Your task to perform on an android device: clear all cookies in the chrome app Image 0: 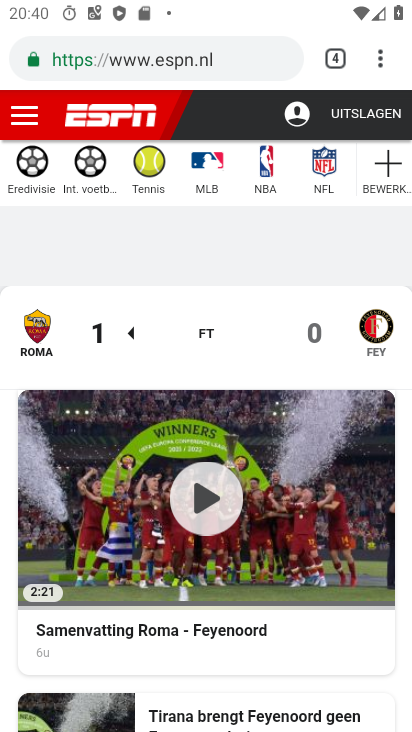
Step 0: press home button
Your task to perform on an android device: clear all cookies in the chrome app Image 1: 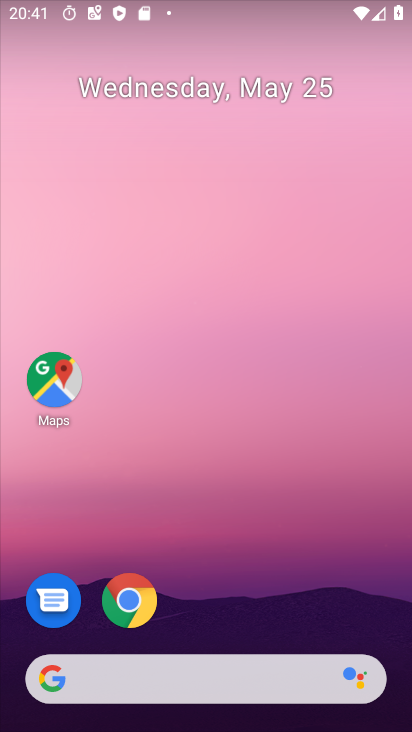
Step 1: drag from (344, 594) to (286, 221)
Your task to perform on an android device: clear all cookies in the chrome app Image 2: 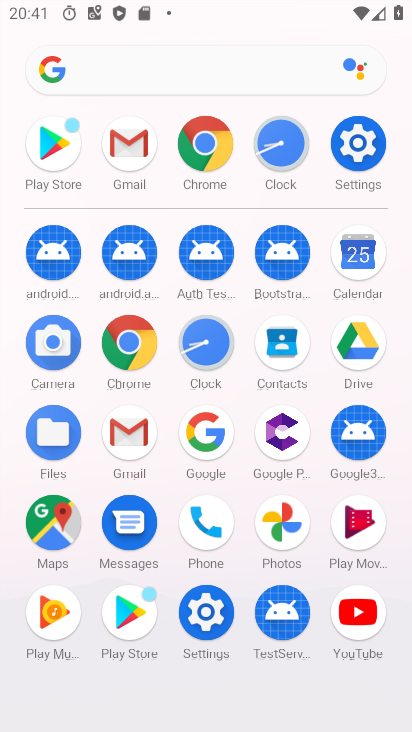
Step 2: click (140, 341)
Your task to perform on an android device: clear all cookies in the chrome app Image 3: 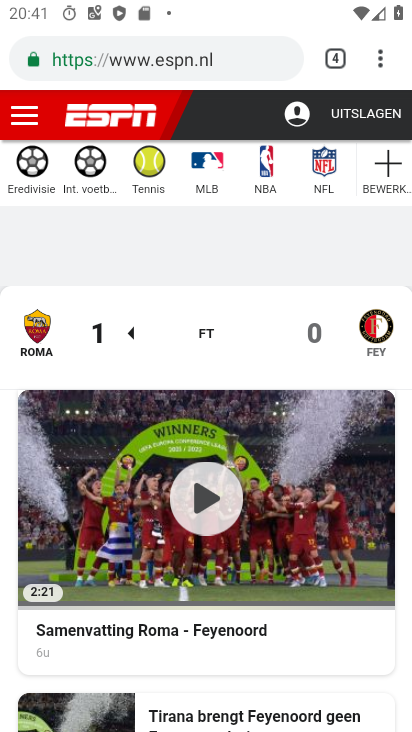
Step 3: drag from (386, 60) to (221, 325)
Your task to perform on an android device: clear all cookies in the chrome app Image 4: 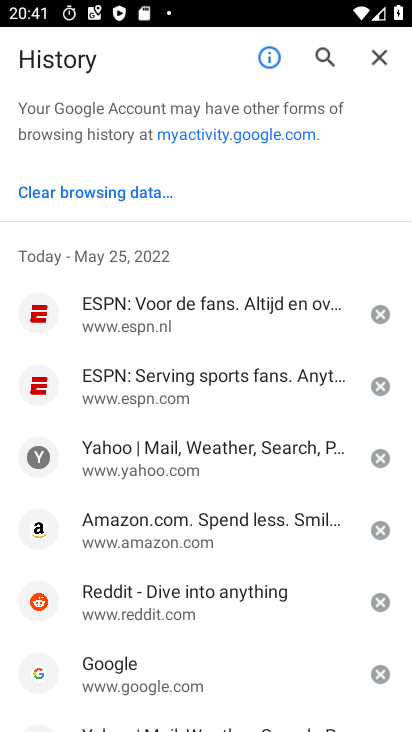
Step 4: click (103, 190)
Your task to perform on an android device: clear all cookies in the chrome app Image 5: 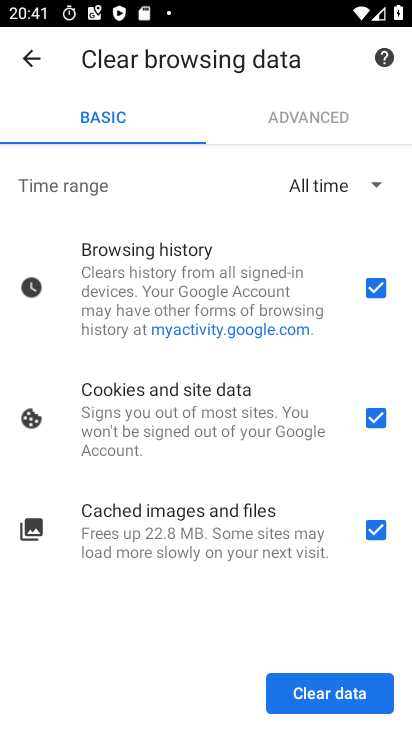
Step 5: click (358, 695)
Your task to perform on an android device: clear all cookies in the chrome app Image 6: 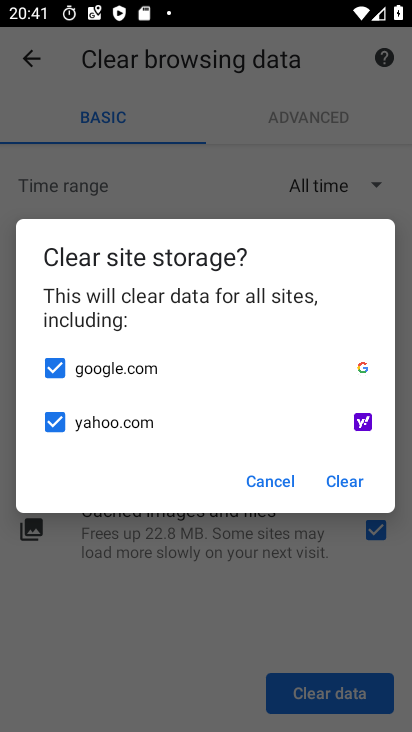
Step 6: click (349, 482)
Your task to perform on an android device: clear all cookies in the chrome app Image 7: 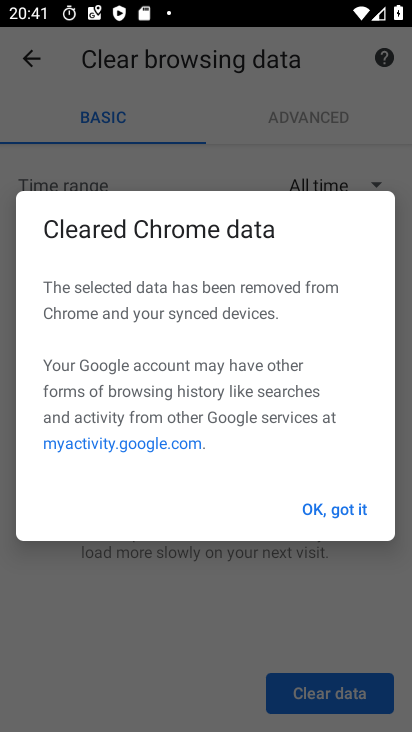
Step 7: click (350, 511)
Your task to perform on an android device: clear all cookies in the chrome app Image 8: 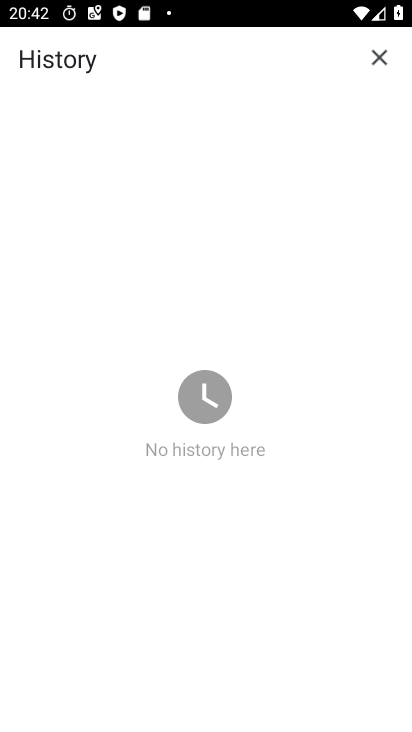
Step 8: task complete